Your task to perform on an android device: Open settings on Google Maps Image 0: 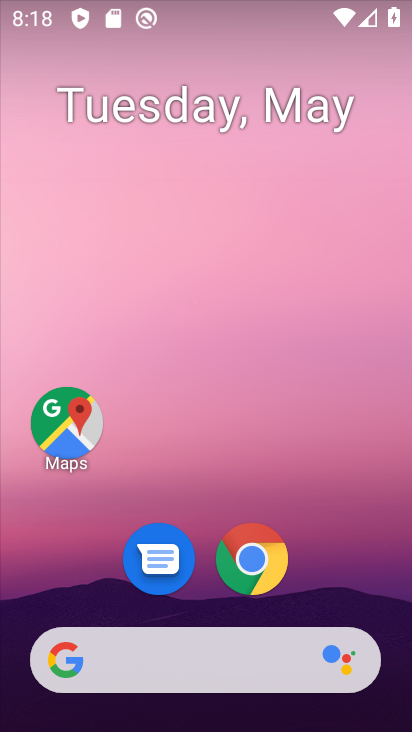
Step 0: drag from (156, 689) to (169, 34)
Your task to perform on an android device: Open settings on Google Maps Image 1: 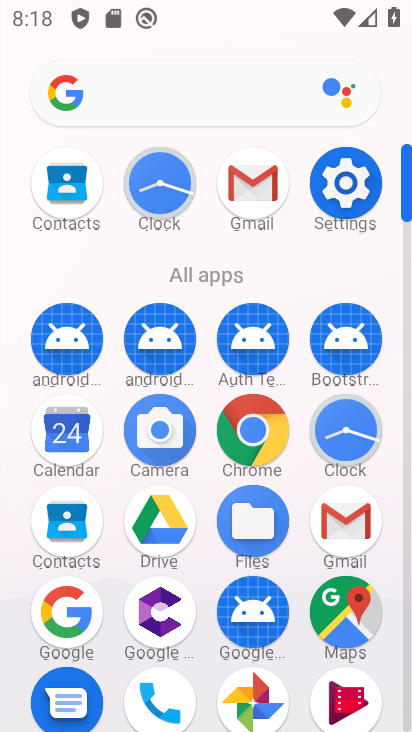
Step 1: click (355, 610)
Your task to perform on an android device: Open settings on Google Maps Image 2: 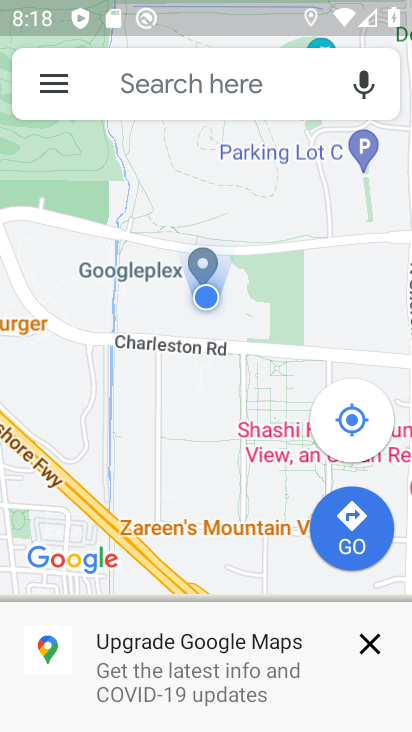
Step 2: click (43, 98)
Your task to perform on an android device: Open settings on Google Maps Image 3: 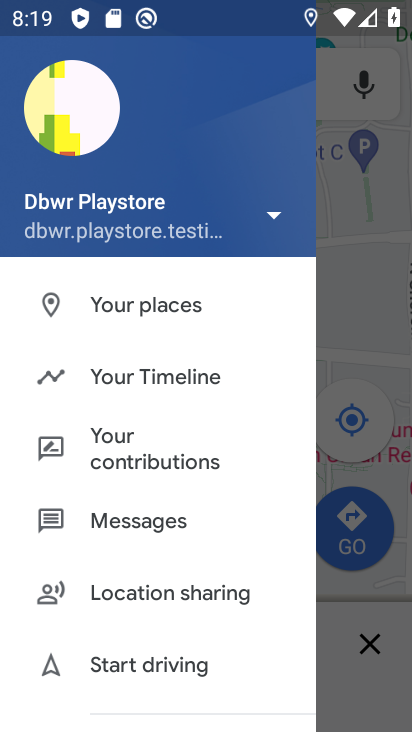
Step 3: drag from (192, 653) to (238, 189)
Your task to perform on an android device: Open settings on Google Maps Image 4: 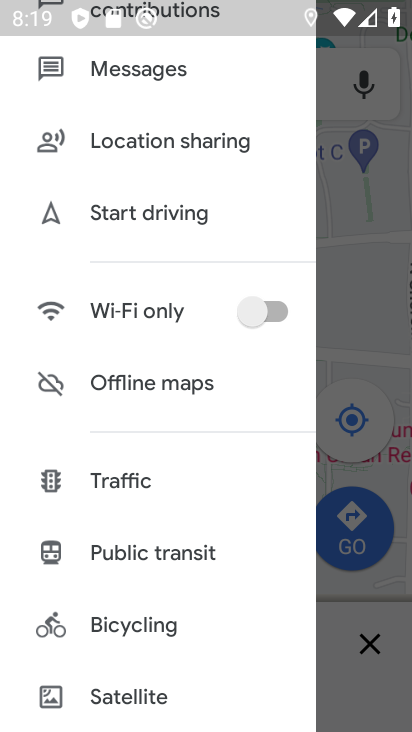
Step 4: drag from (130, 662) to (180, 221)
Your task to perform on an android device: Open settings on Google Maps Image 5: 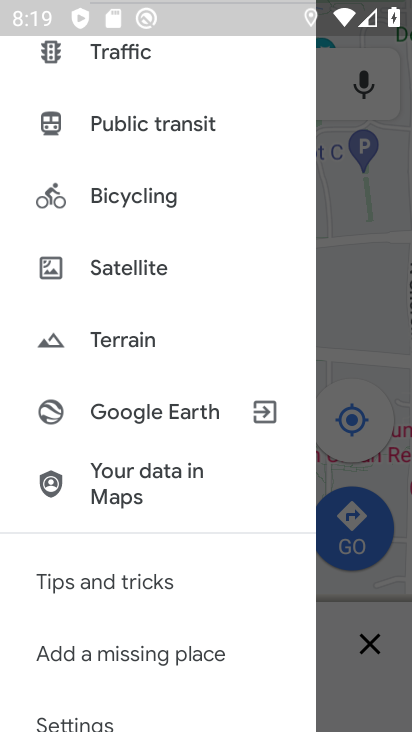
Step 5: click (71, 718)
Your task to perform on an android device: Open settings on Google Maps Image 6: 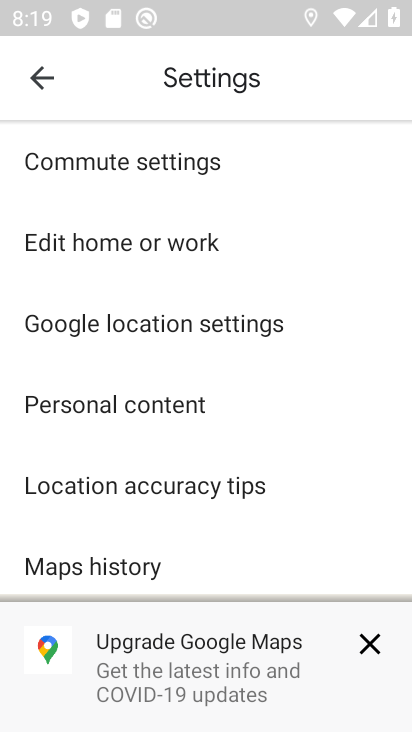
Step 6: click (376, 642)
Your task to perform on an android device: Open settings on Google Maps Image 7: 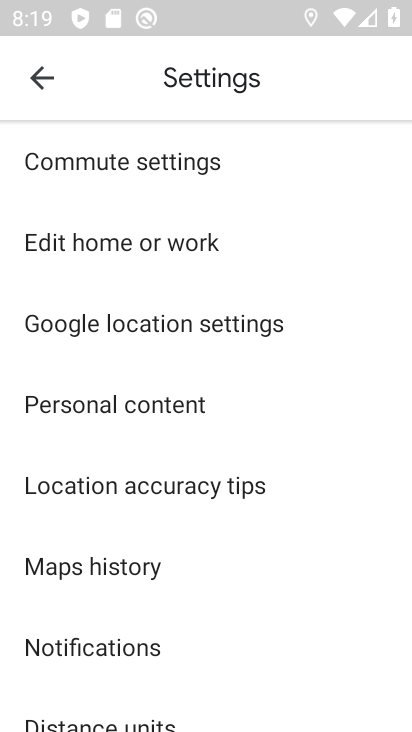
Step 7: task complete